Your task to perform on an android device: make emails show in primary in the gmail app Image 0: 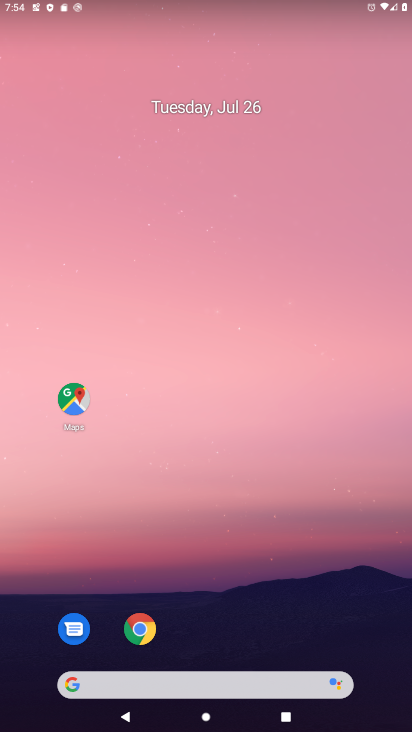
Step 0: drag from (287, 599) to (286, 173)
Your task to perform on an android device: make emails show in primary in the gmail app Image 1: 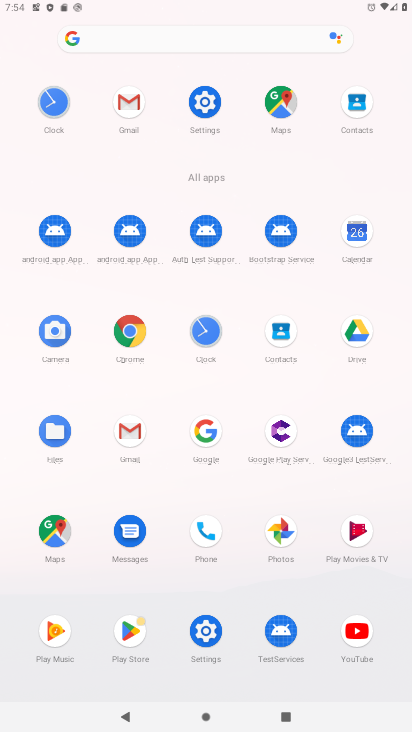
Step 1: click (128, 113)
Your task to perform on an android device: make emails show in primary in the gmail app Image 2: 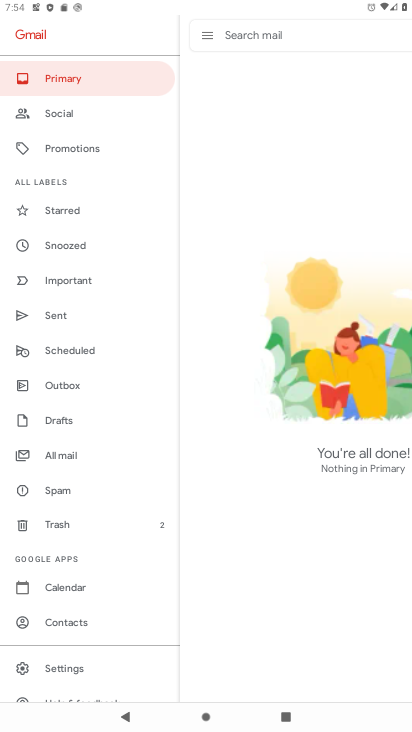
Step 2: click (73, 666)
Your task to perform on an android device: make emails show in primary in the gmail app Image 3: 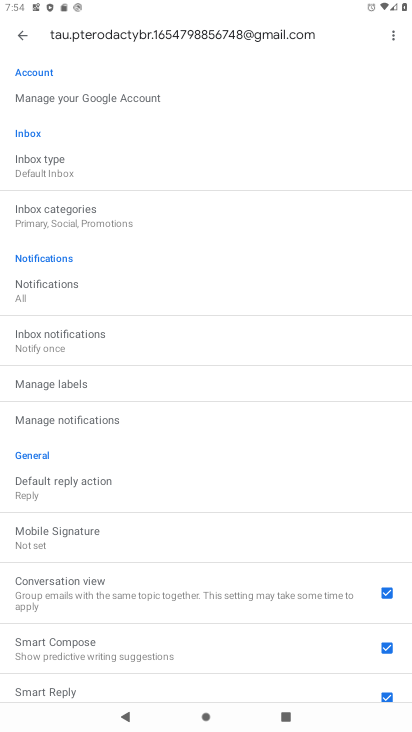
Step 3: click (40, 179)
Your task to perform on an android device: make emails show in primary in the gmail app Image 4: 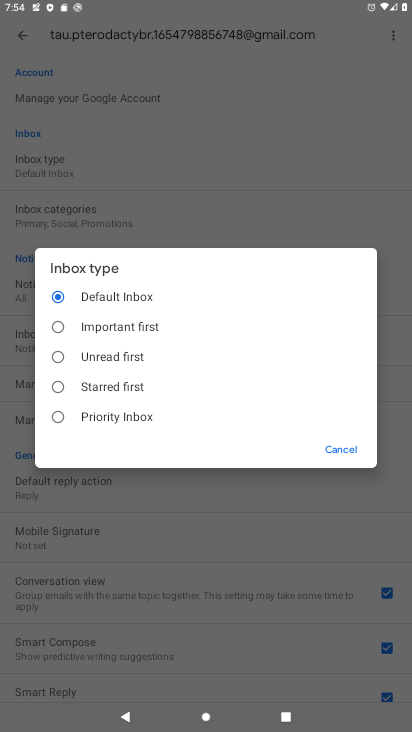
Step 4: click (78, 292)
Your task to perform on an android device: make emails show in primary in the gmail app Image 5: 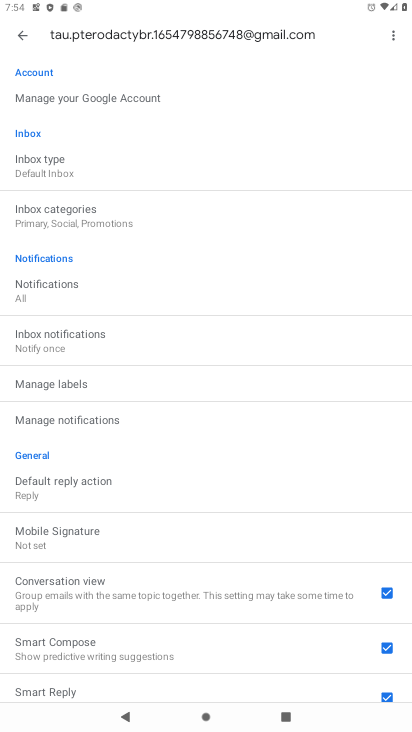
Step 5: task complete